Your task to perform on an android device: Open notification settings Image 0: 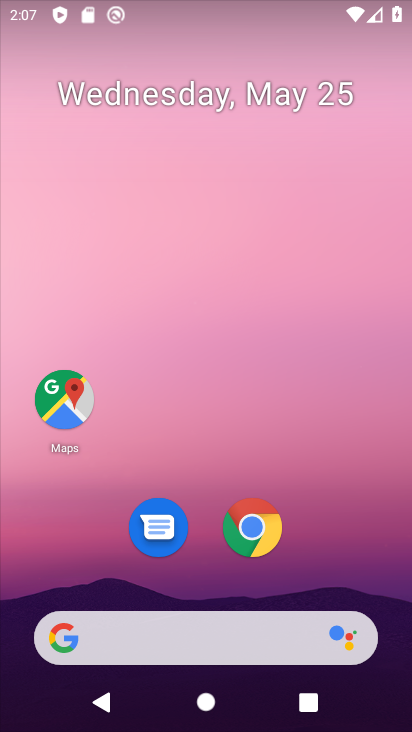
Step 0: drag from (203, 514) to (308, 13)
Your task to perform on an android device: Open notification settings Image 1: 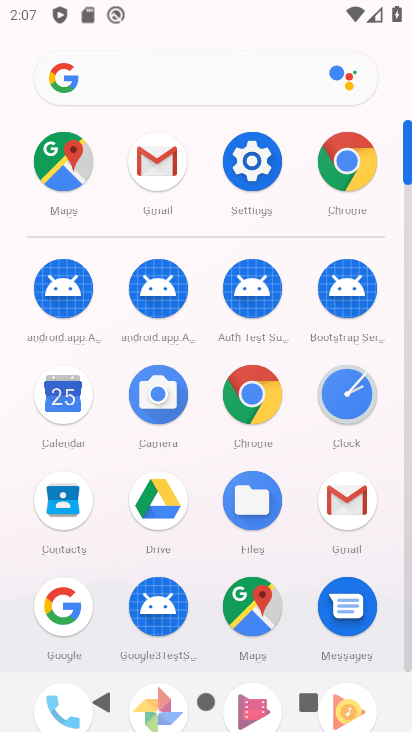
Step 1: click (268, 145)
Your task to perform on an android device: Open notification settings Image 2: 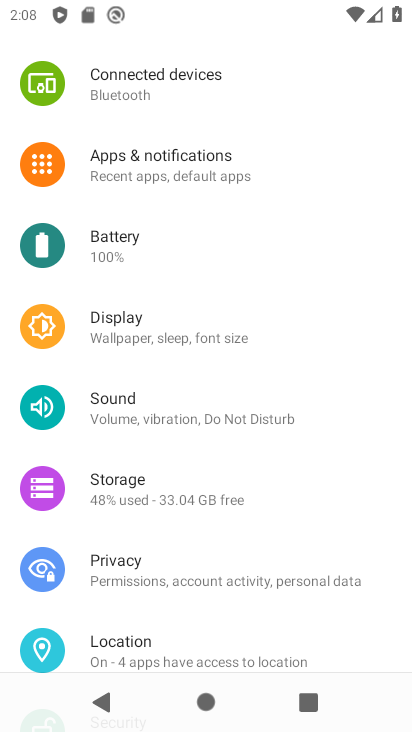
Step 2: click (225, 169)
Your task to perform on an android device: Open notification settings Image 3: 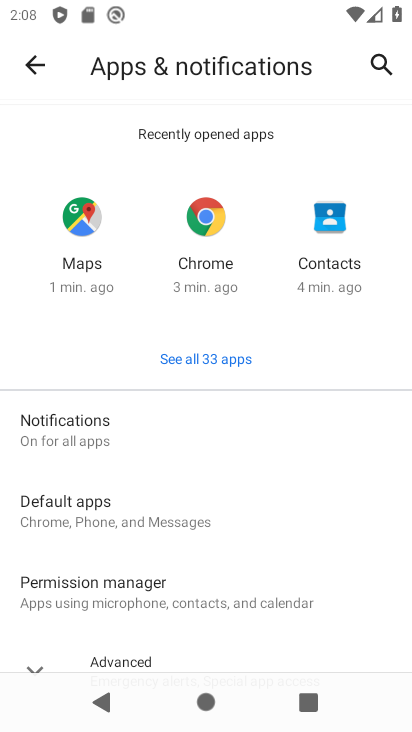
Step 3: click (121, 409)
Your task to perform on an android device: Open notification settings Image 4: 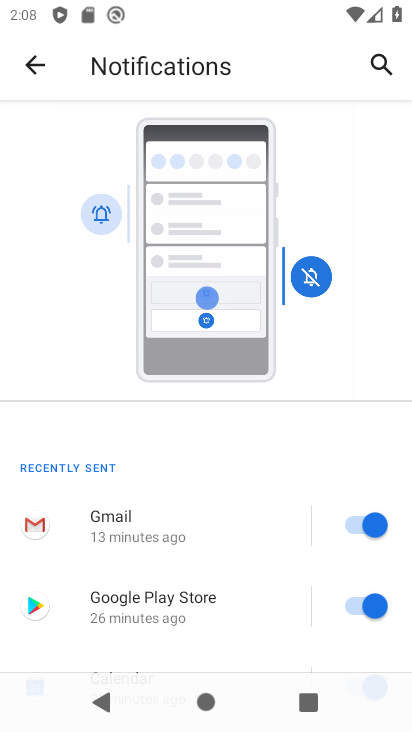
Step 4: drag from (226, 619) to (327, 285)
Your task to perform on an android device: Open notification settings Image 5: 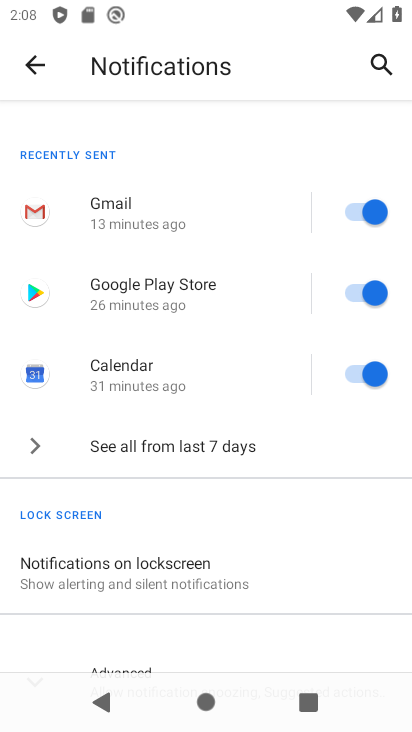
Step 5: click (352, 368)
Your task to perform on an android device: Open notification settings Image 6: 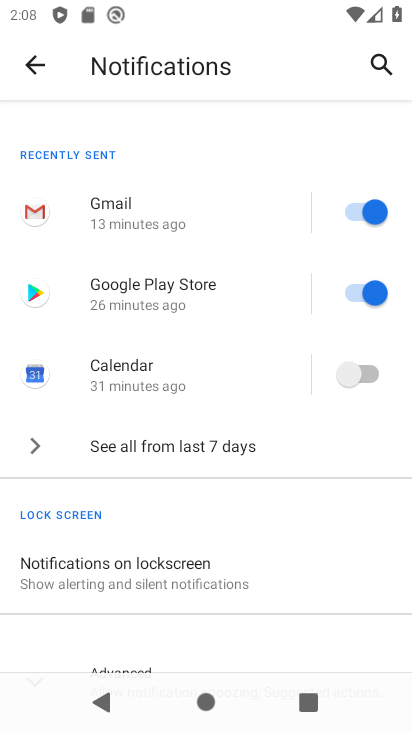
Step 6: task complete